Your task to perform on an android device: Search for sushi restaurants on Maps Image 0: 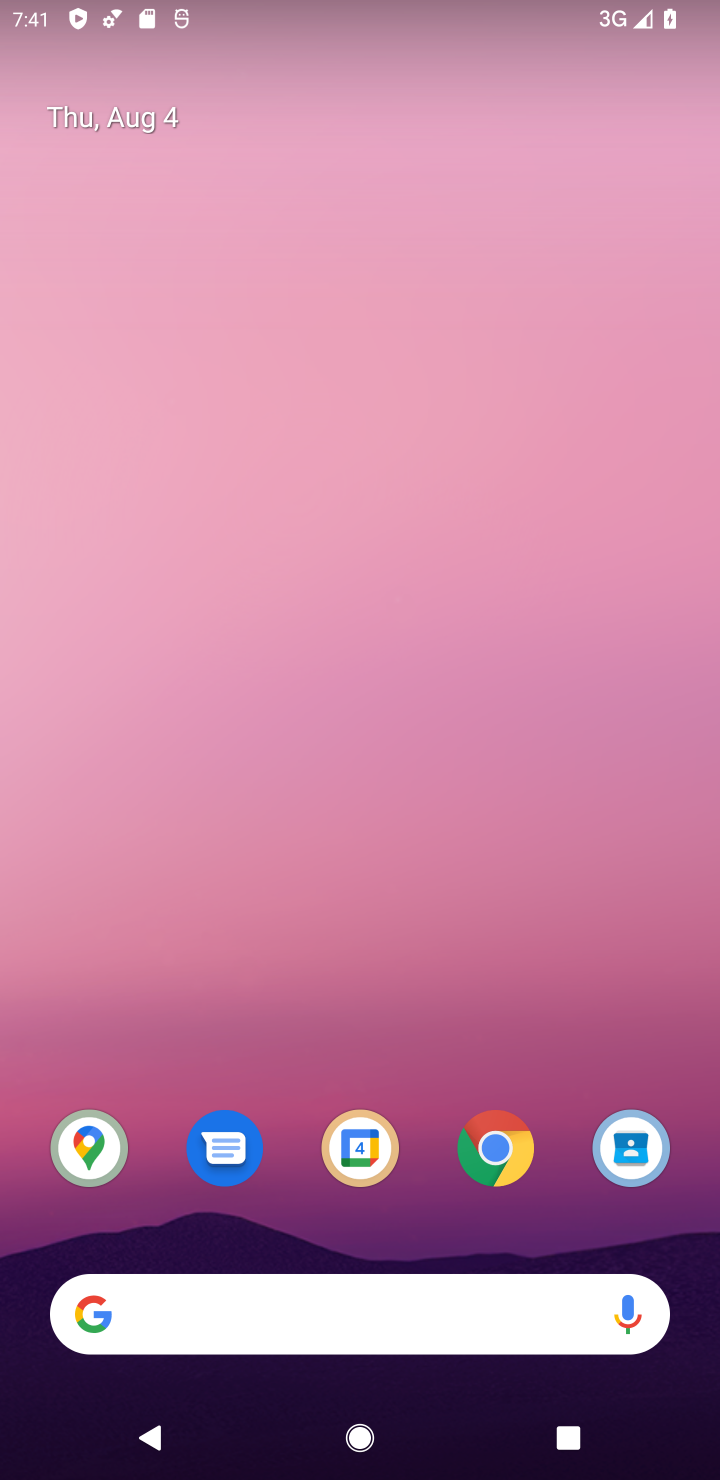
Step 0: click (92, 1153)
Your task to perform on an android device: Search for sushi restaurants on Maps Image 1: 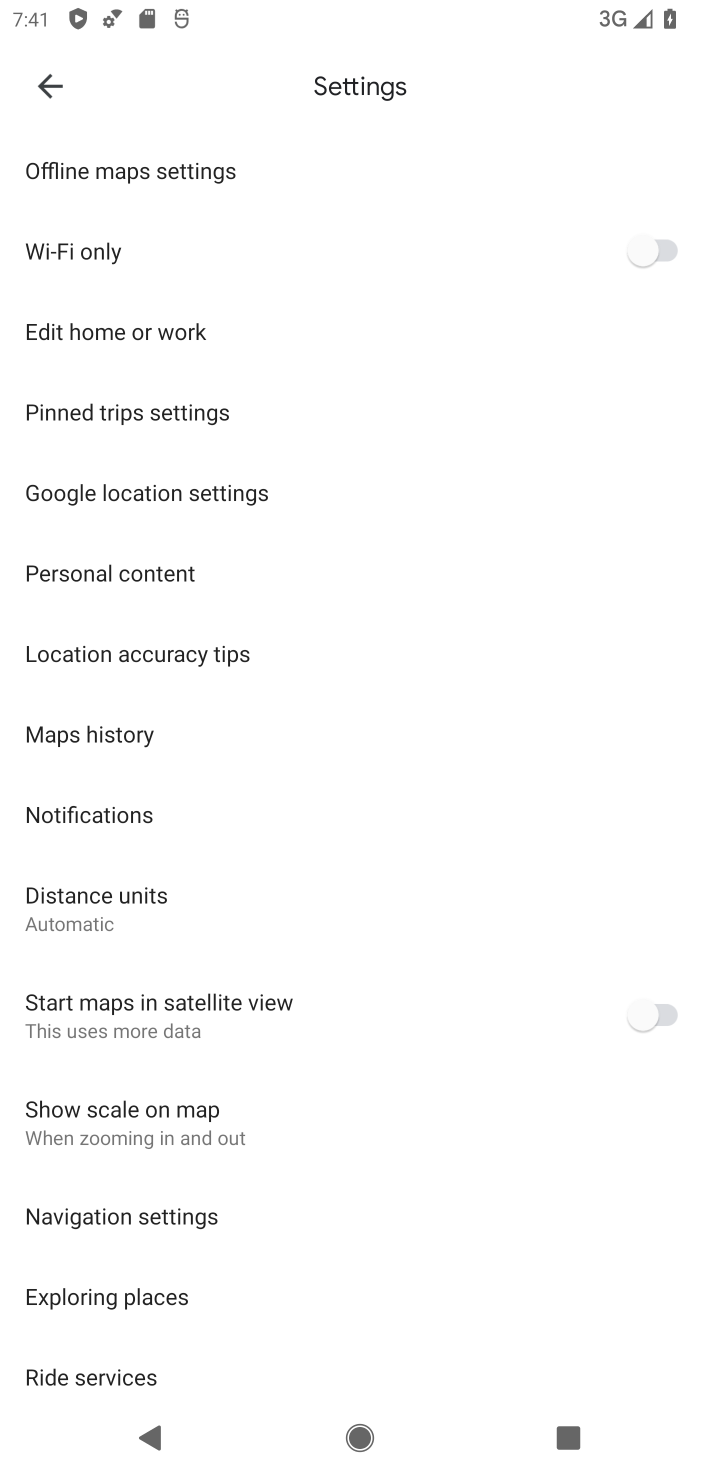
Step 1: press back button
Your task to perform on an android device: Search for sushi restaurants on Maps Image 2: 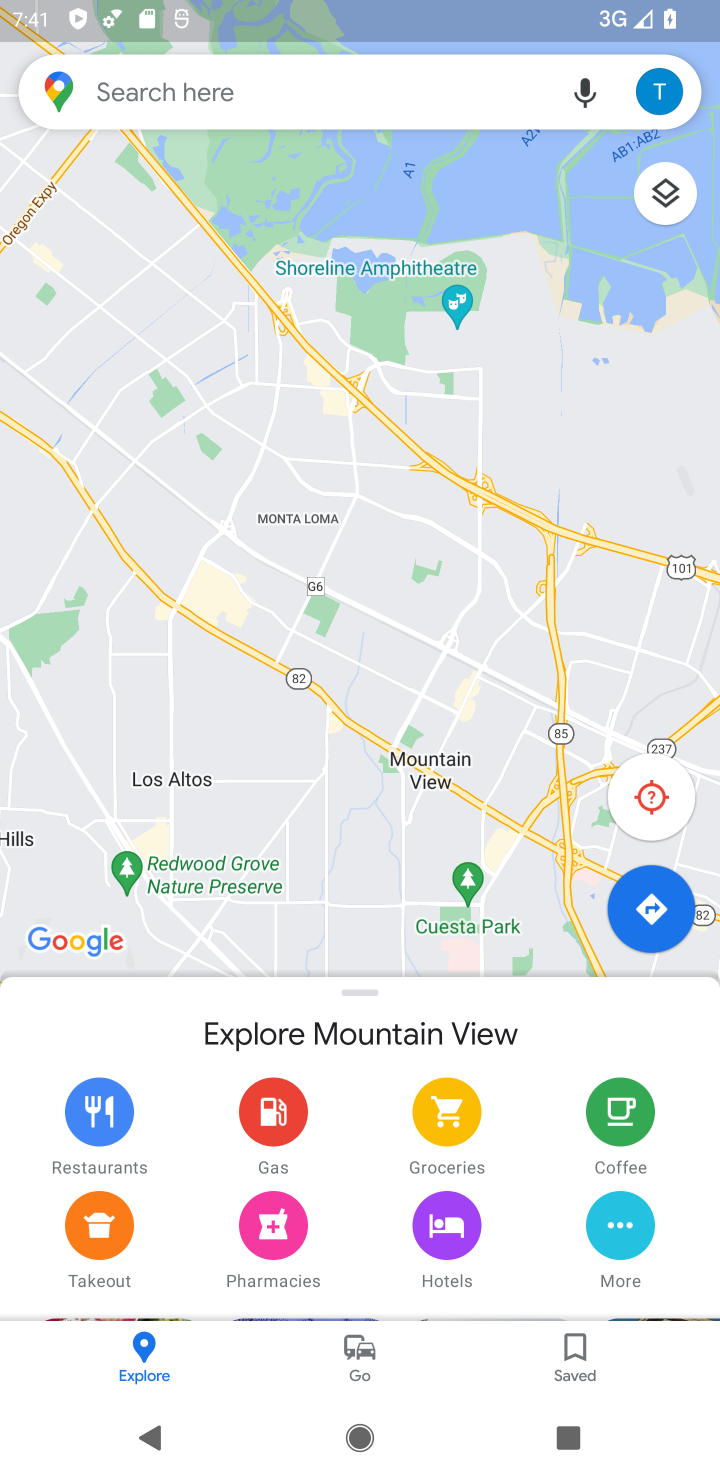
Step 2: click (153, 99)
Your task to perform on an android device: Search for sushi restaurants on Maps Image 3: 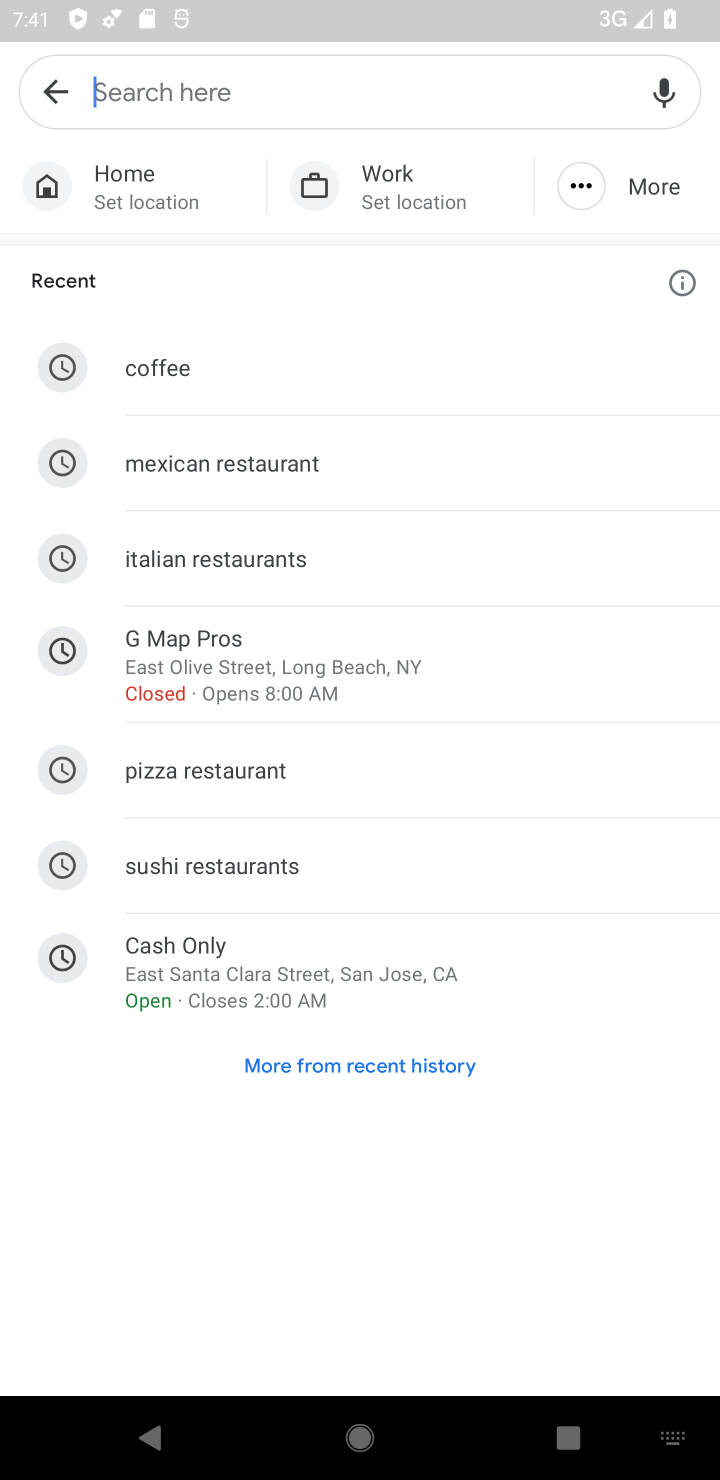
Step 3: click (508, 861)
Your task to perform on an android device: Search for sushi restaurants on Maps Image 4: 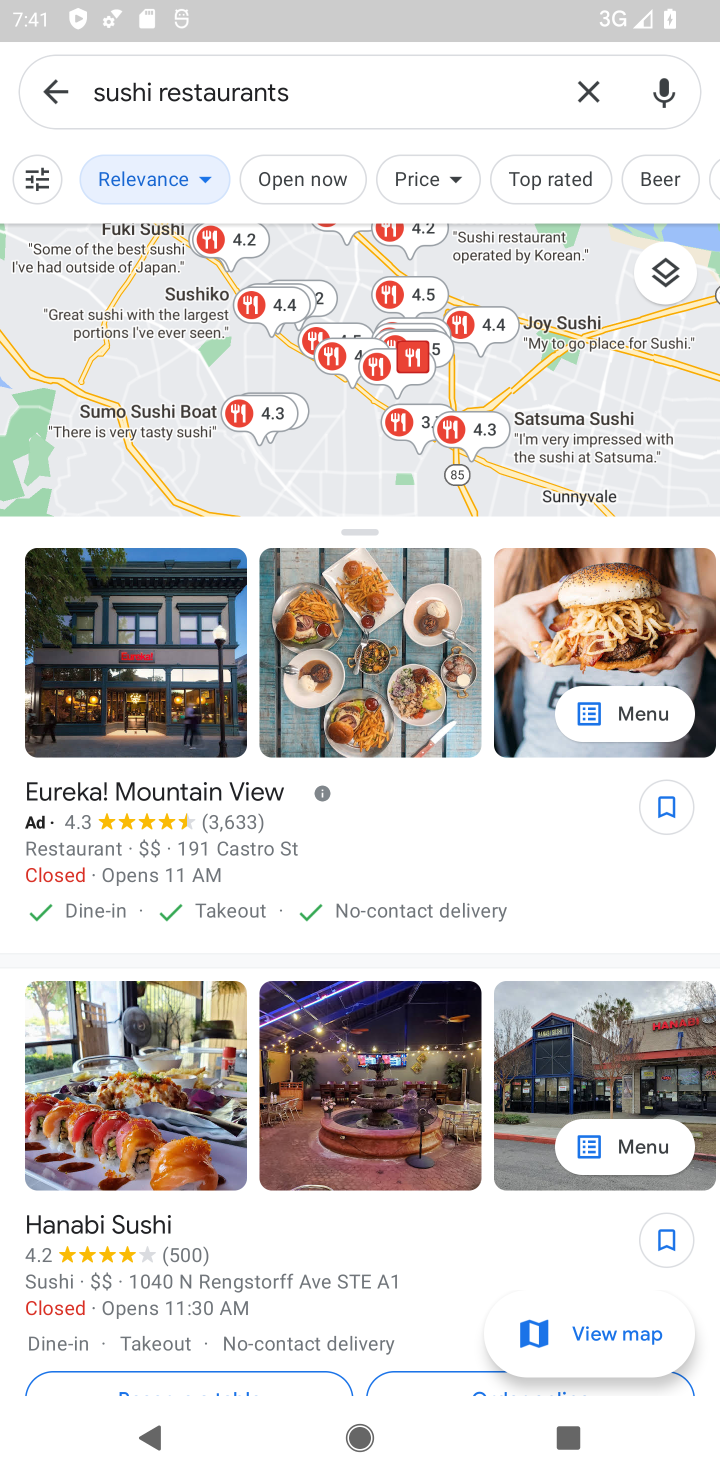
Step 4: task complete